Your task to perform on an android device: change the upload size in google photos Image 0: 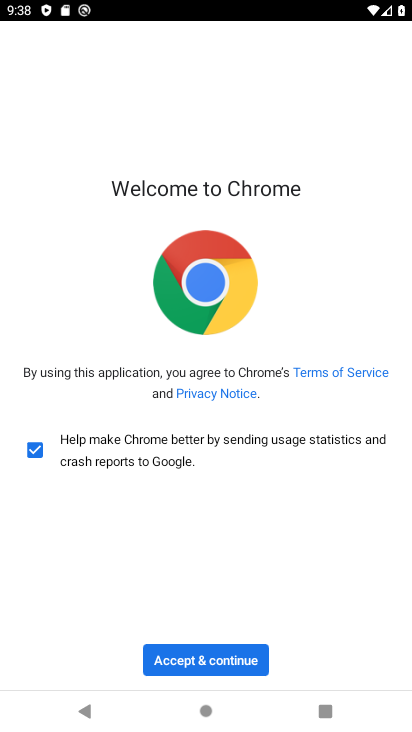
Step 0: press home button
Your task to perform on an android device: change the upload size in google photos Image 1: 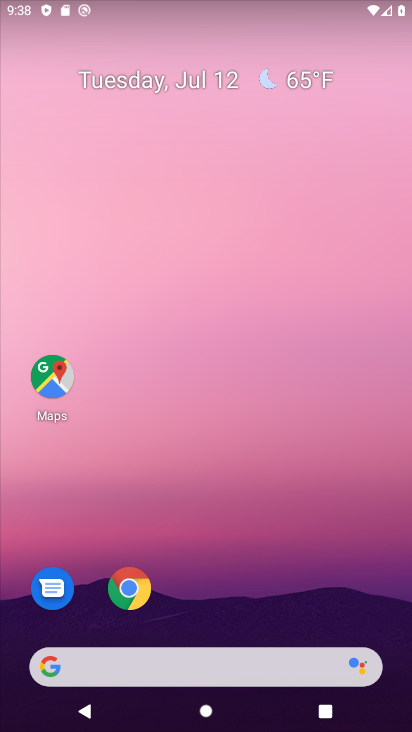
Step 1: task complete